Your task to perform on an android device: toggle sleep mode Image 0: 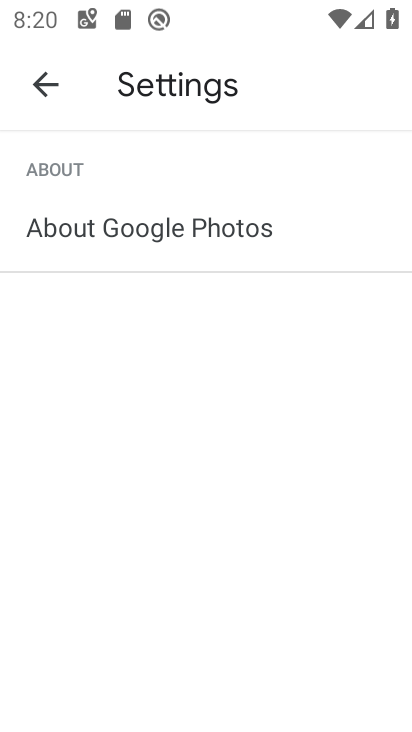
Step 0: press home button
Your task to perform on an android device: toggle sleep mode Image 1: 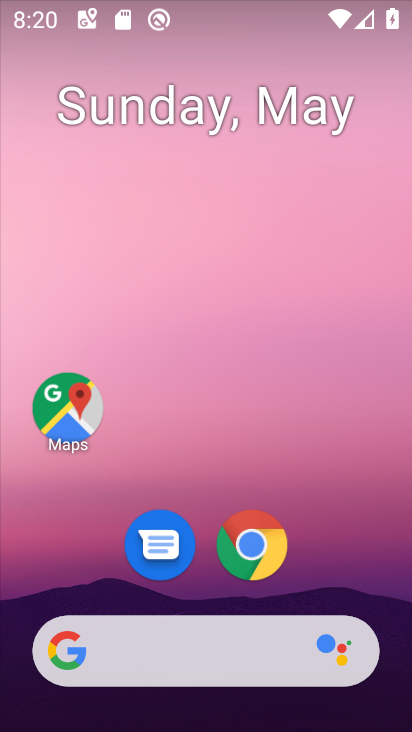
Step 1: drag from (130, 615) to (232, 65)
Your task to perform on an android device: toggle sleep mode Image 2: 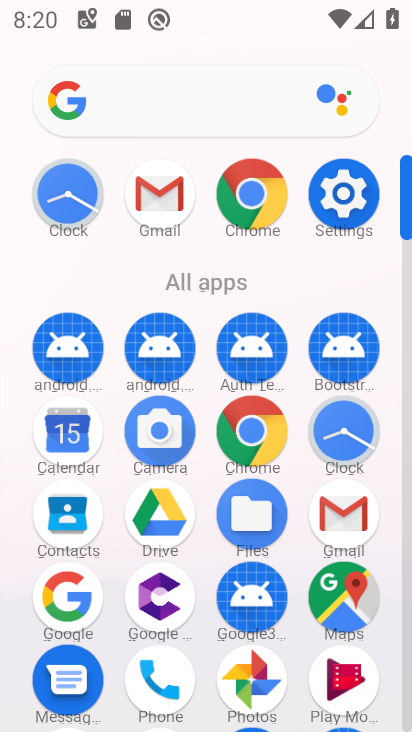
Step 2: click (345, 201)
Your task to perform on an android device: toggle sleep mode Image 3: 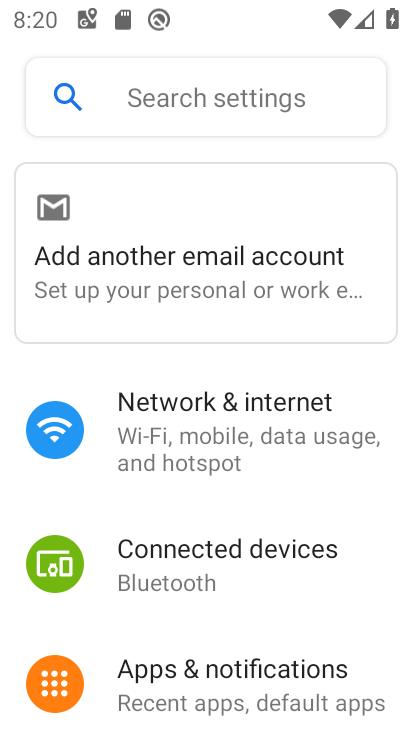
Step 3: drag from (222, 599) to (373, 115)
Your task to perform on an android device: toggle sleep mode Image 4: 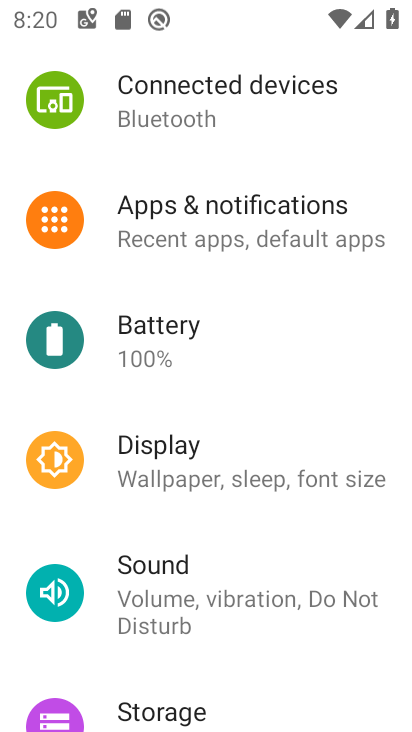
Step 4: click (208, 451)
Your task to perform on an android device: toggle sleep mode Image 5: 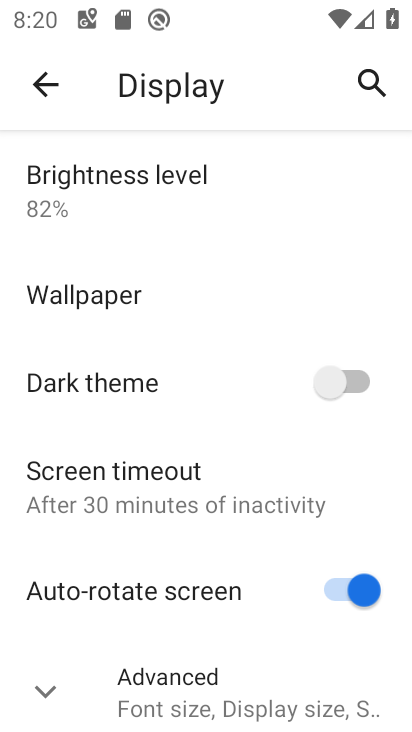
Step 5: click (184, 666)
Your task to perform on an android device: toggle sleep mode Image 6: 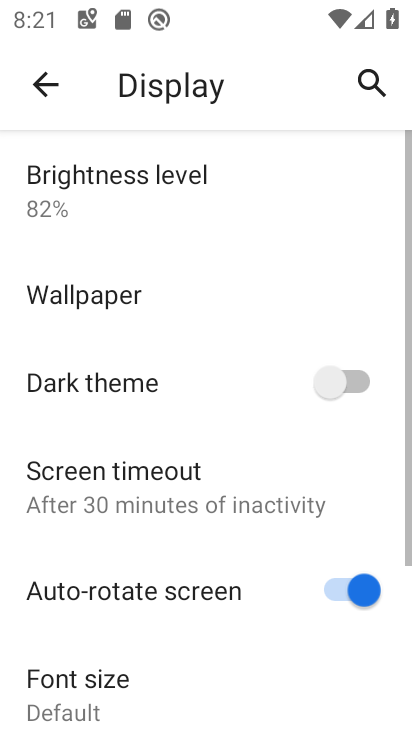
Step 6: task complete